Your task to perform on an android device: see creations saved in the google photos Image 0: 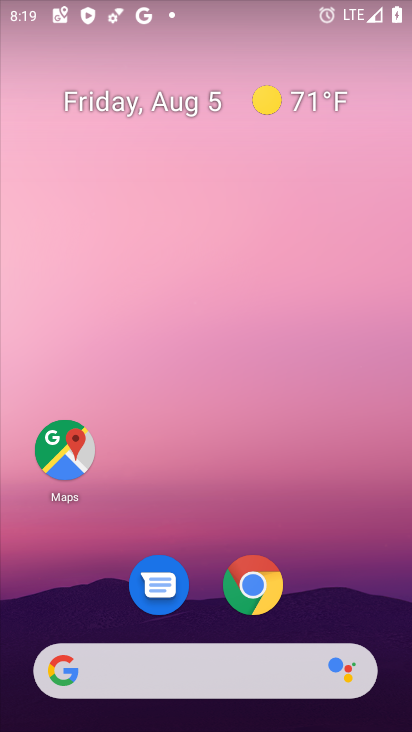
Step 0: drag from (209, 501) to (267, 4)
Your task to perform on an android device: see creations saved in the google photos Image 1: 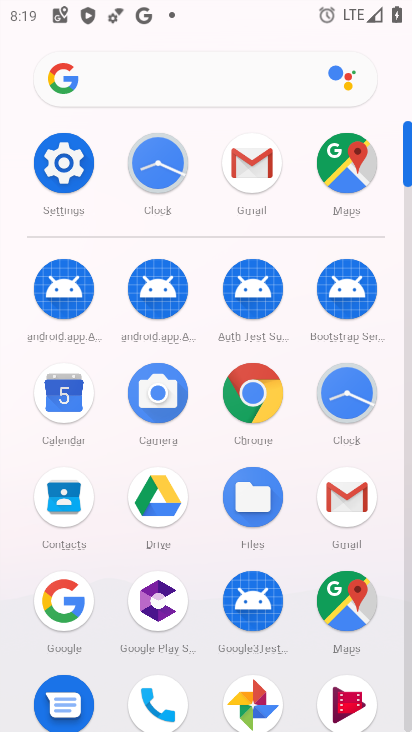
Step 1: click (263, 685)
Your task to perform on an android device: see creations saved in the google photos Image 2: 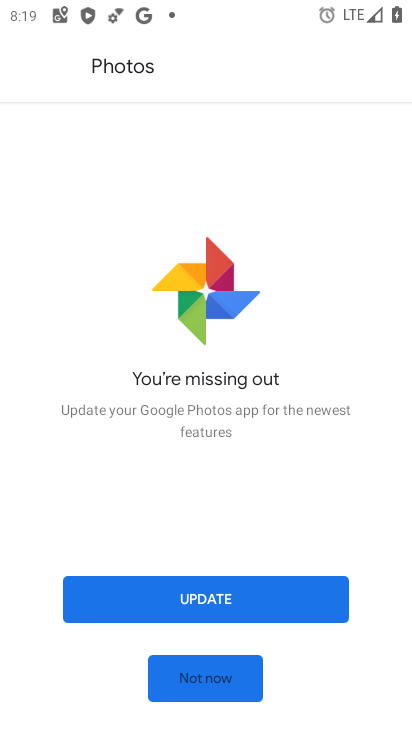
Step 2: click (230, 671)
Your task to perform on an android device: see creations saved in the google photos Image 3: 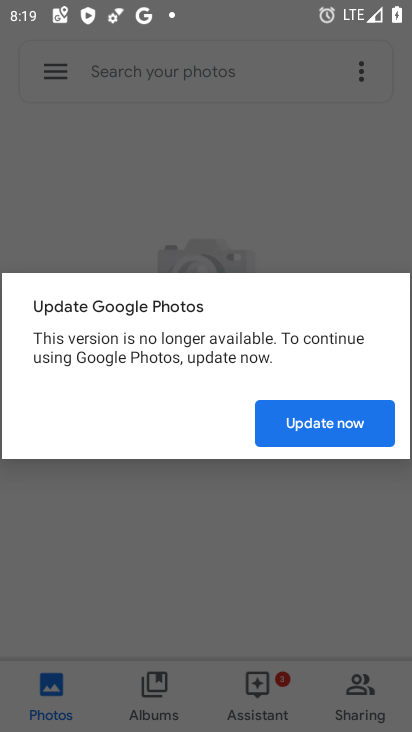
Step 3: click (350, 431)
Your task to perform on an android device: see creations saved in the google photos Image 4: 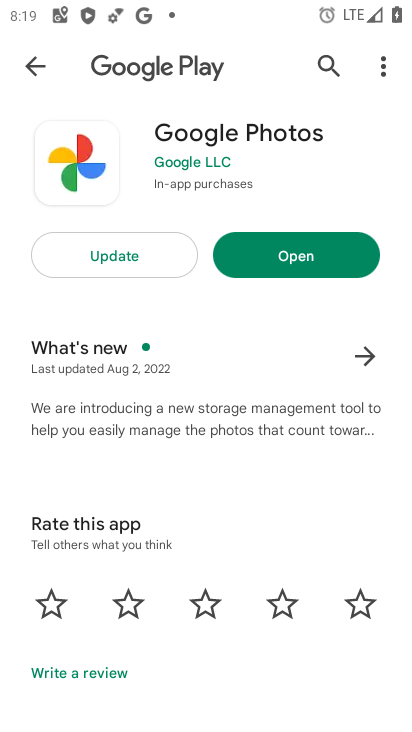
Step 4: click (250, 250)
Your task to perform on an android device: see creations saved in the google photos Image 5: 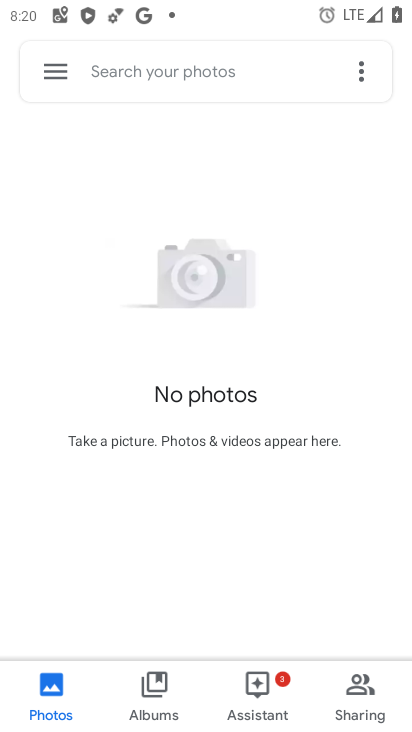
Step 5: click (248, 70)
Your task to perform on an android device: see creations saved in the google photos Image 6: 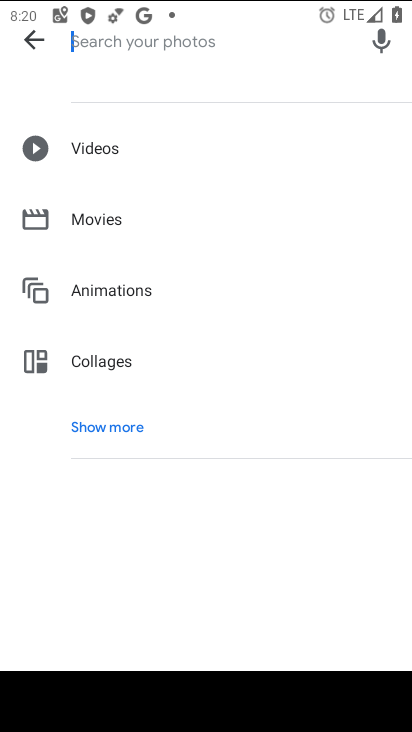
Step 6: click (116, 420)
Your task to perform on an android device: see creations saved in the google photos Image 7: 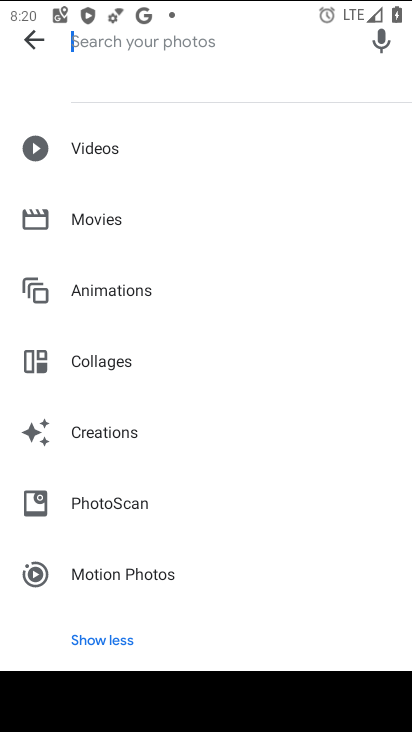
Step 7: click (116, 428)
Your task to perform on an android device: see creations saved in the google photos Image 8: 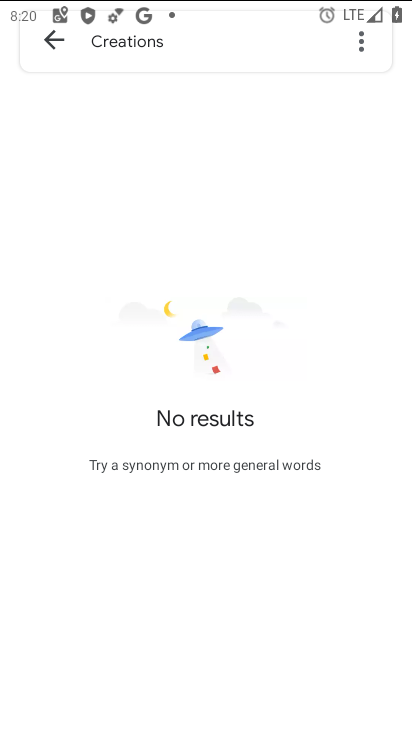
Step 8: task complete